Your task to perform on an android device: open the mobile data screen to see how much data has been used Image 0: 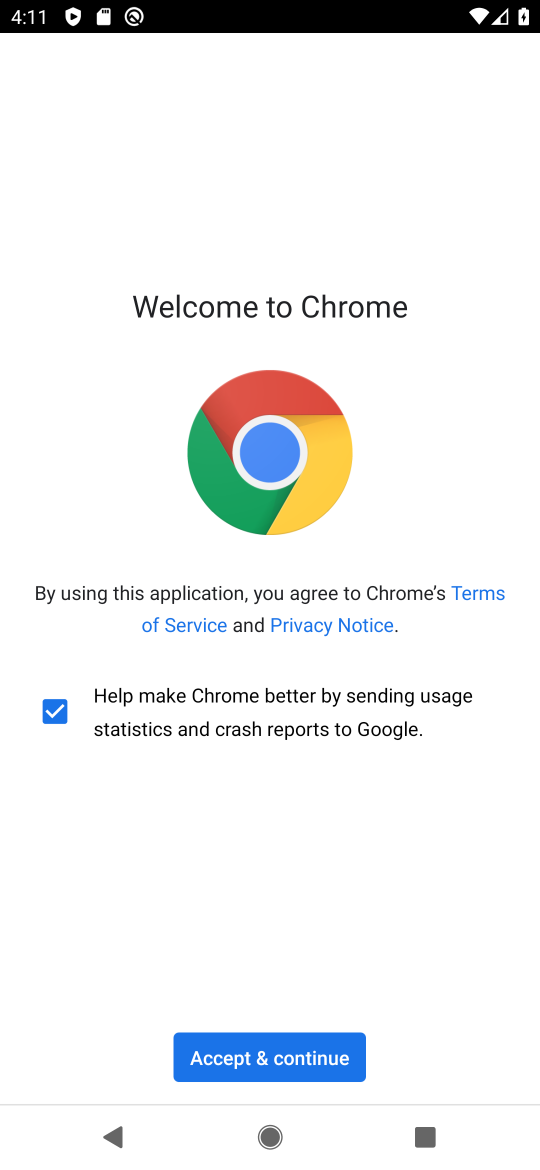
Step 0: press home button
Your task to perform on an android device: open the mobile data screen to see how much data has been used Image 1: 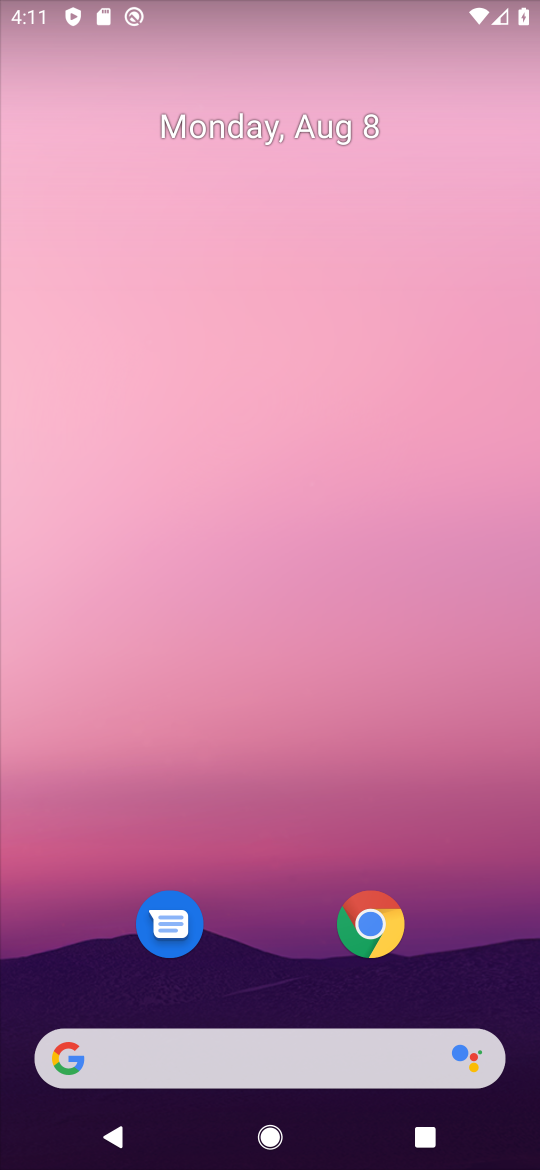
Step 1: drag from (292, 944) to (357, 155)
Your task to perform on an android device: open the mobile data screen to see how much data has been used Image 2: 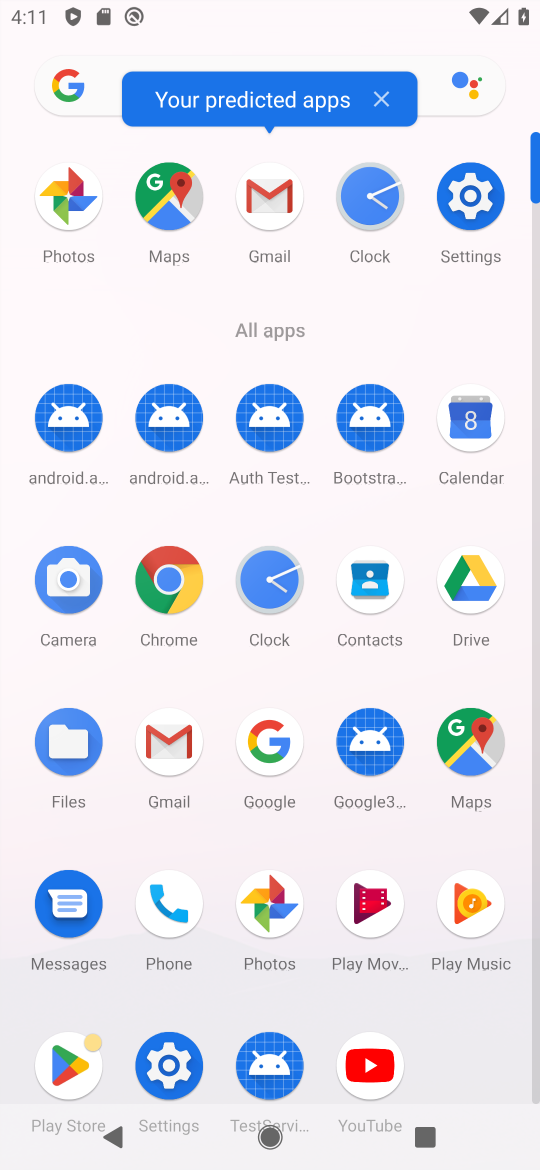
Step 2: click (464, 187)
Your task to perform on an android device: open the mobile data screen to see how much data has been used Image 3: 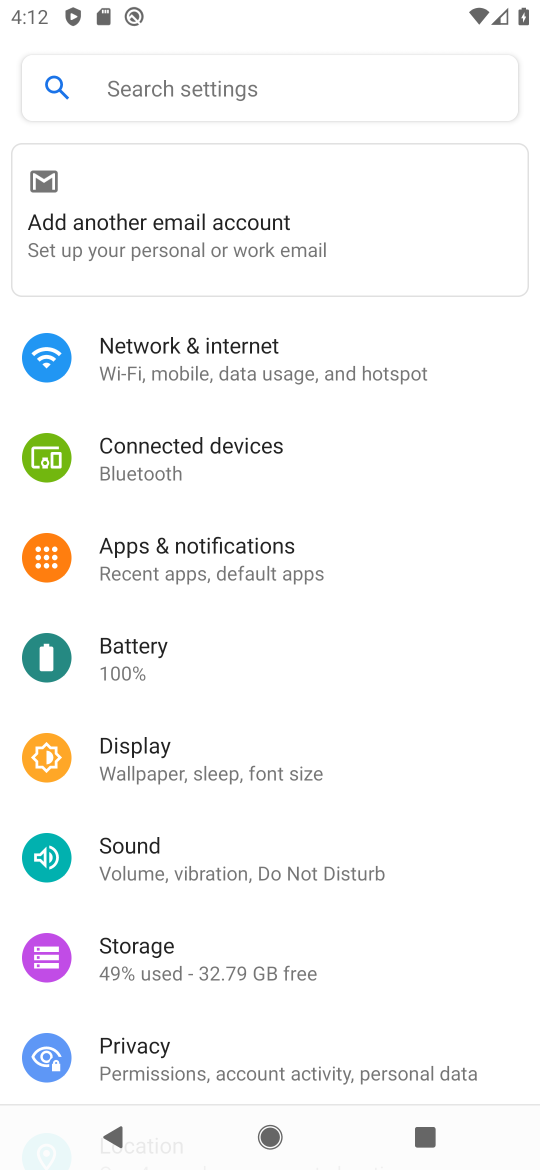
Step 3: click (224, 355)
Your task to perform on an android device: open the mobile data screen to see how much data has been used Image 4: 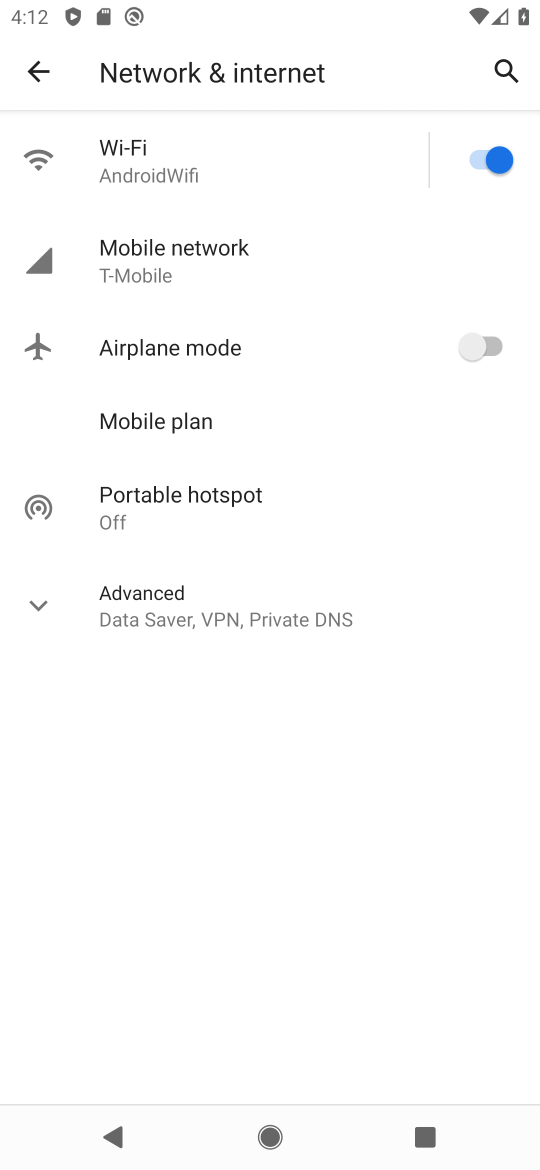
Step 4: click (199, 258)
Your task to perform on an android device: open the mobile data screen to see how much data has been used Image 5: 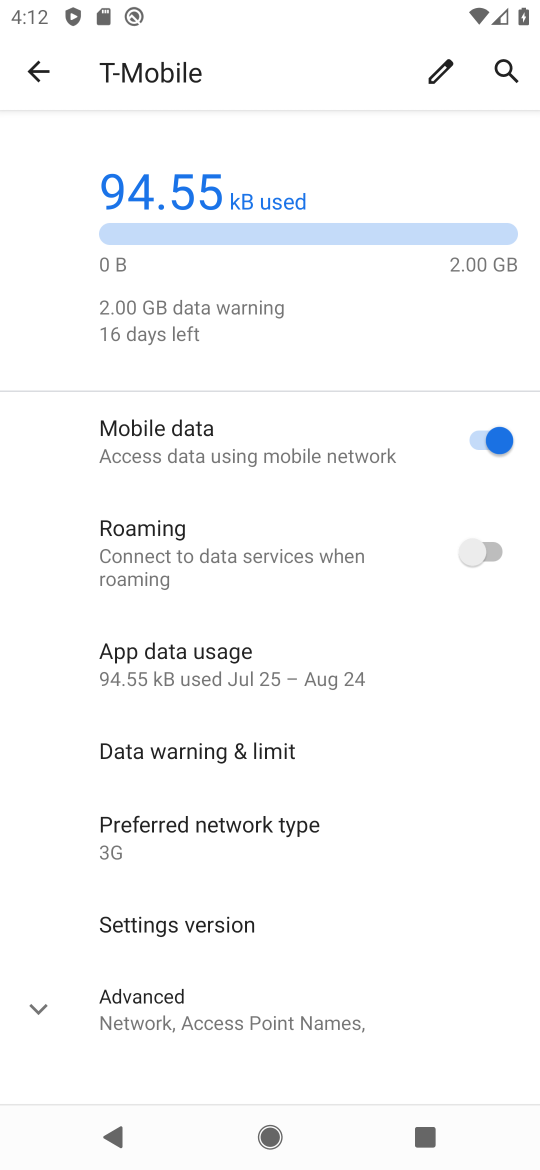
Step 5: click (271, 661)
Your task to perform on an android device: open the mobile data screen to see how much data has been used Image 6: 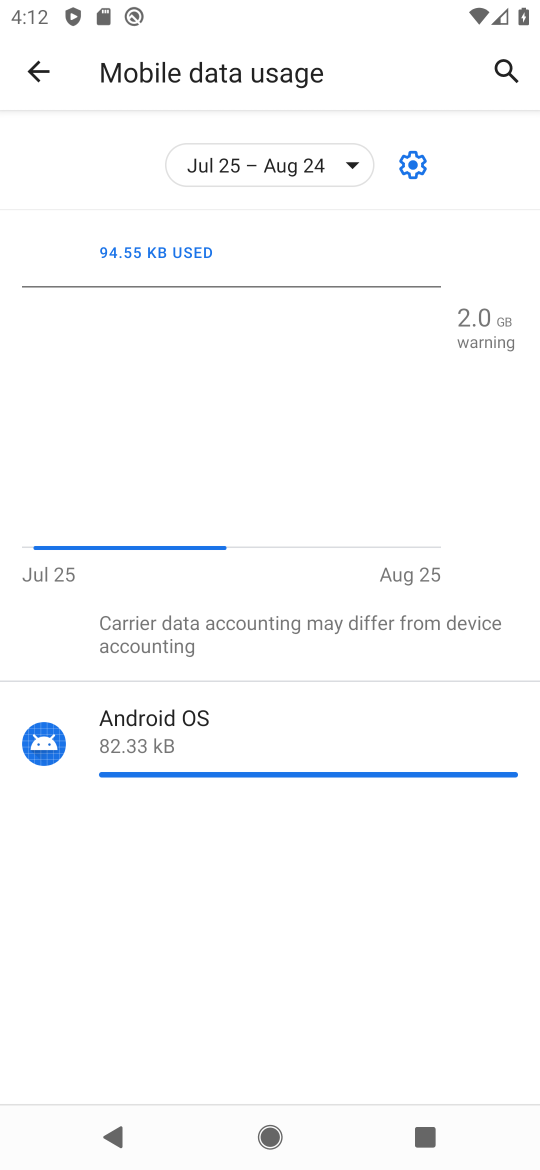
Step 6: task complete